Your task to perform on an android device: Search for "usb-a to usb-b" on costco.com, select the first entry, add it to the cart, then select checkout. Image 0: 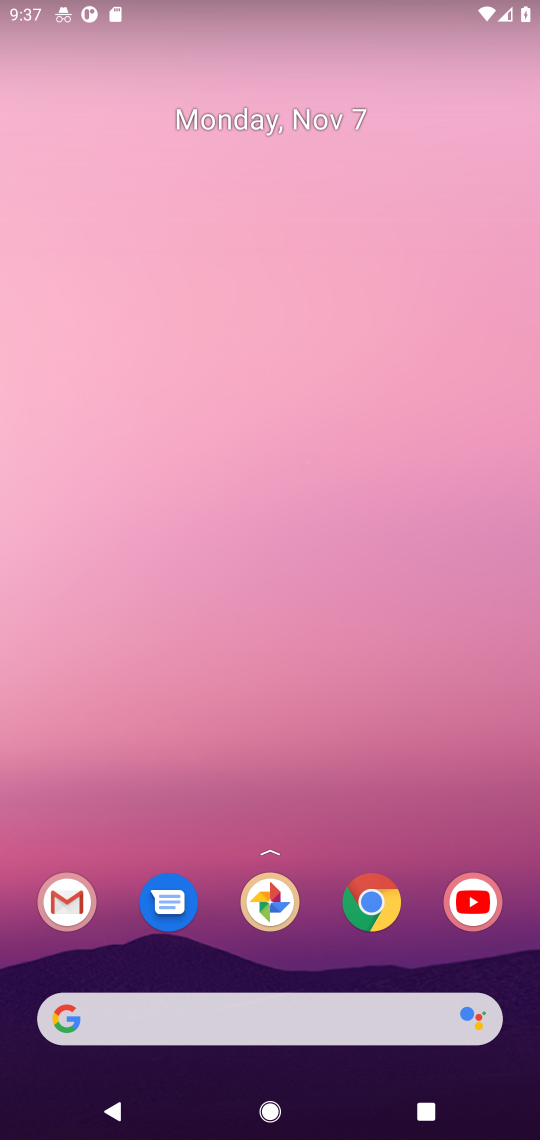
Step 0: click (363, 914)
Your task to perform on an android device: Search for "usb-a to usb-b" on costco.com, select the first entry, add it to the cart, then select checkout. Image 1: 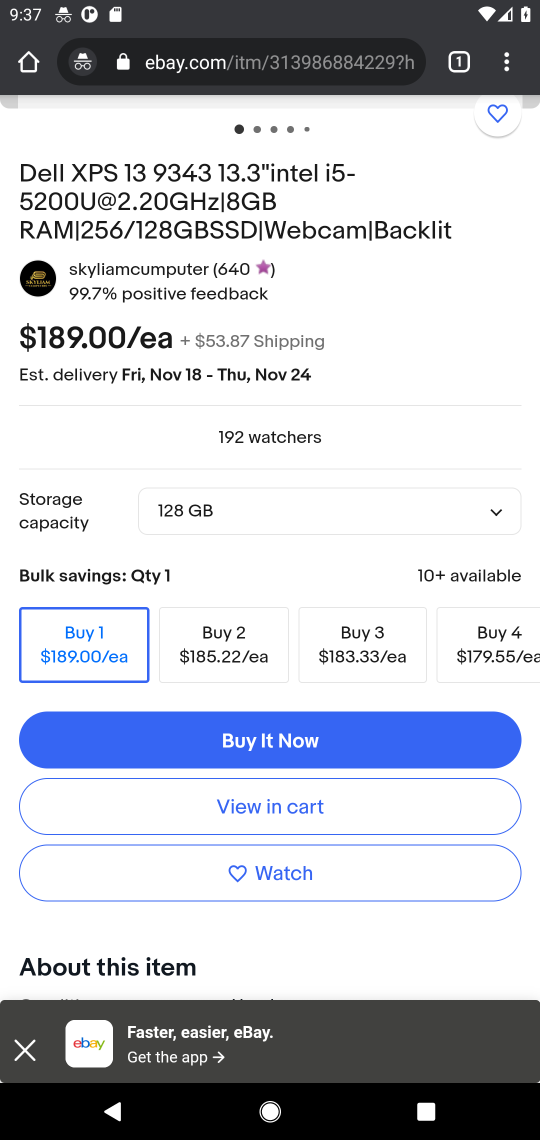
Step 1: click (259, 71)
Your task to perform on an android device: Search for "usb-a to usb-b" on costco.com, select the first entry, add it to the cart, then select checkout. Image 2: 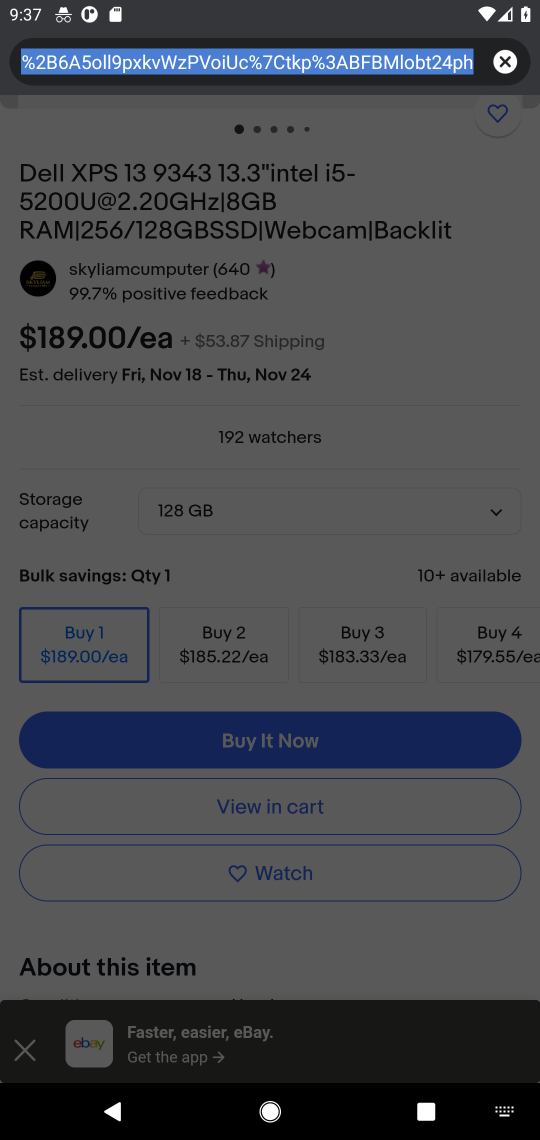
Step 2: click (498, 60)
Your task to perform on an android device: Search for "usb-a to usb-b" on costco.com, select the first entry, add it to the cart, then select checkout. Image 3: 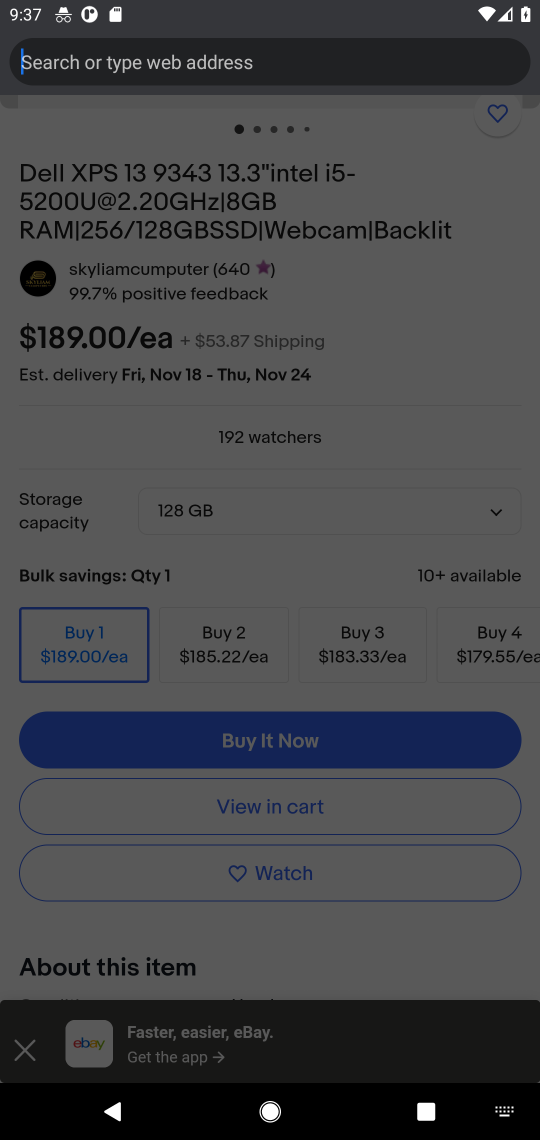
Step 3: click (350, 83)
Your task to perform on an android device: Search for "usb-a to usb-b" on costco.com, select the first entry, add it to the cart, then select checkout. Image 4: 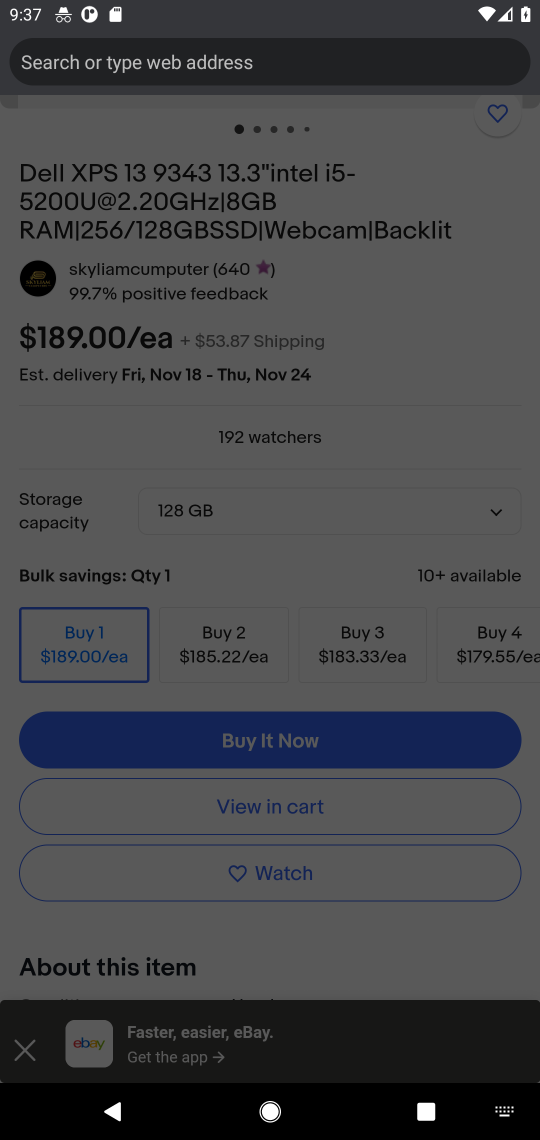
Step 4: type "costco.com"
Your task to perform on an android device: Search for "usb-a to usb-b" on costco.com, select the first entry, add it to the cart, then select checkout. Image 5: 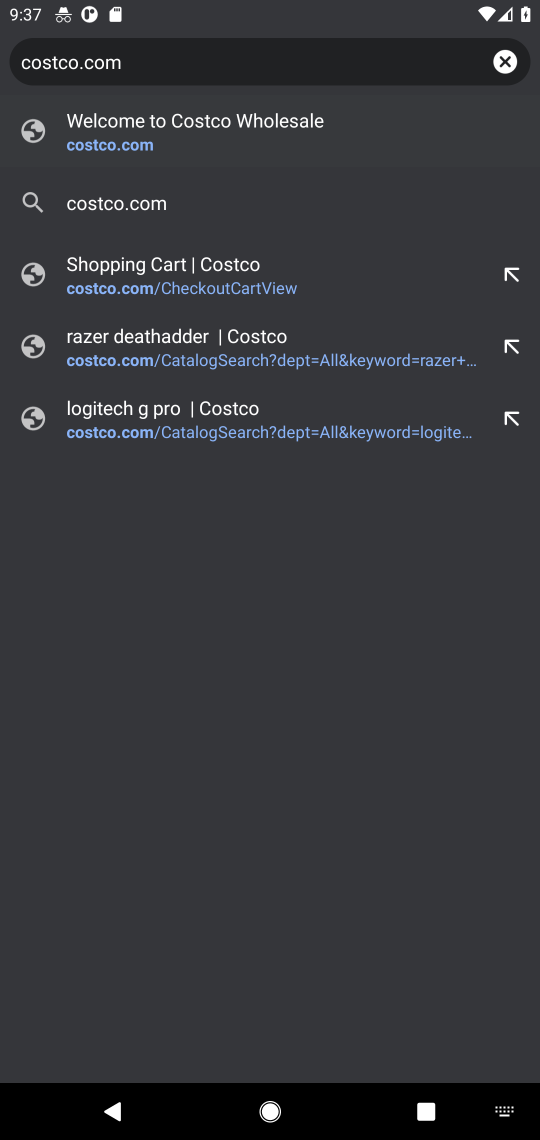
Step 5: click (143, 141)
Your task to perform on an android device: Search for "usb-a to usb-b" on costco.com, select the first entry, add it to the cart, then select checkout. Image 6: 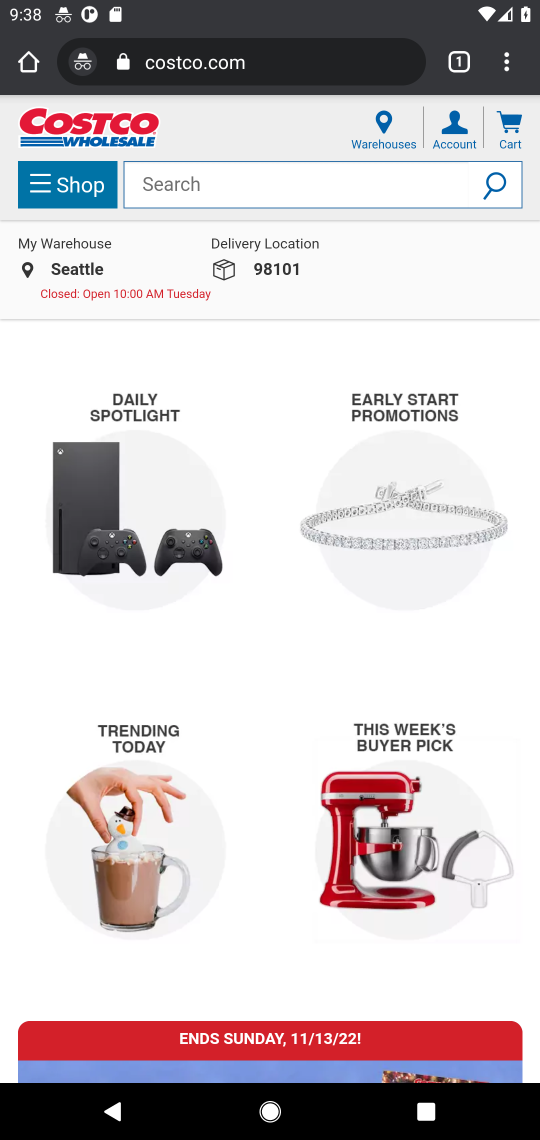
Step 6: click (216, 179)
Your task to perform on an android device: Search for "usb-a to usb-b" on costco.com, select the first entry, add it to the cart, then select checkout. Image 7: 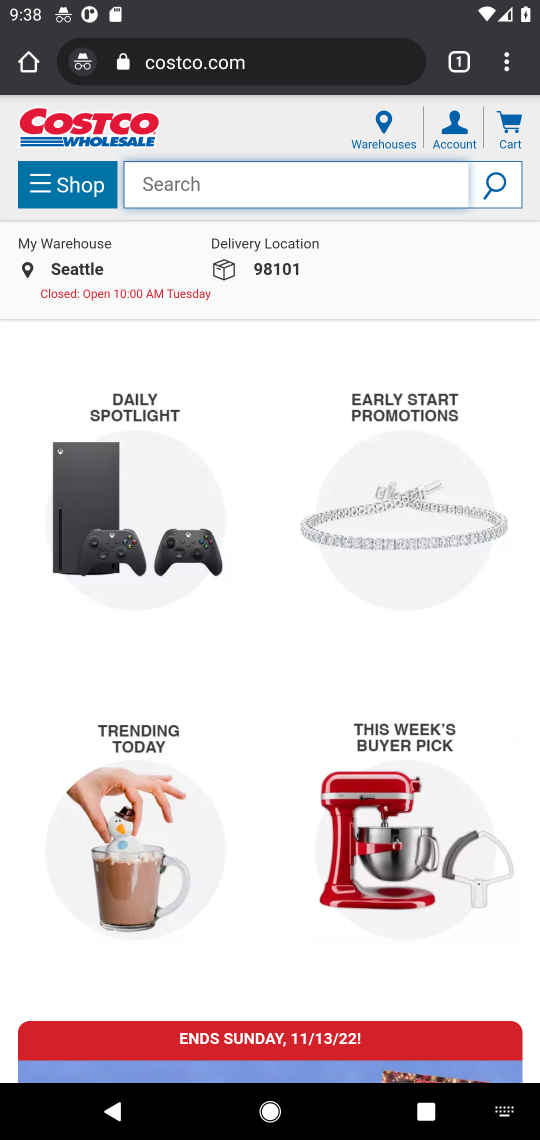
Step 7: type "usb-a to usb-b"
Your task to perform on an android device: Search for "usb-a to usb-b" on costco.com, select the first entry, add it to the cart, then select checkout. Image 8: 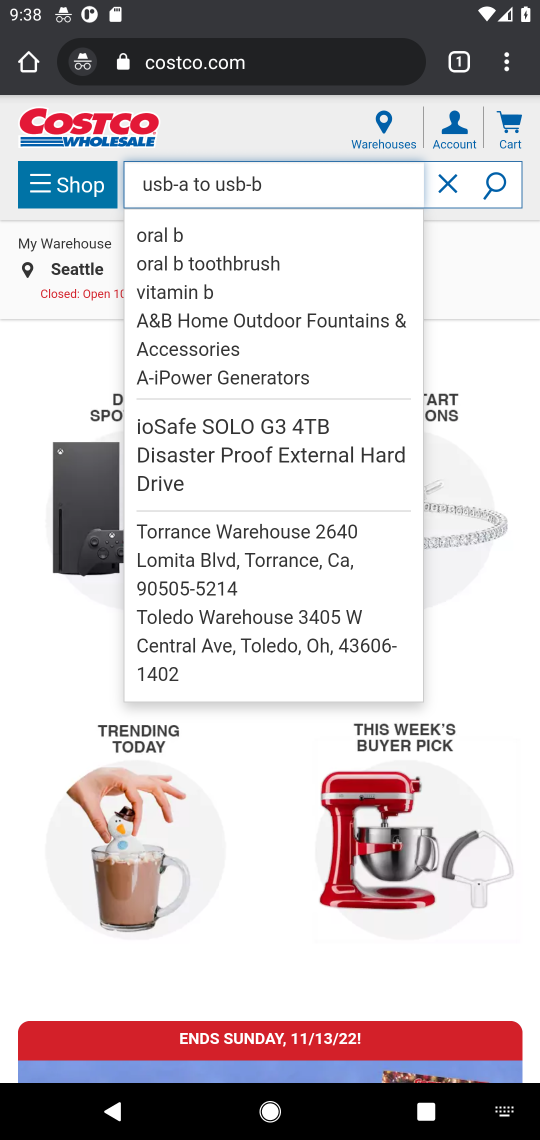
Step 8: click (496, 187)
Your task to perform on an android device: Search for "usb-a to usb-b" on costco.com, select the first entry, add it to the cart, then select checkout. Image 9: 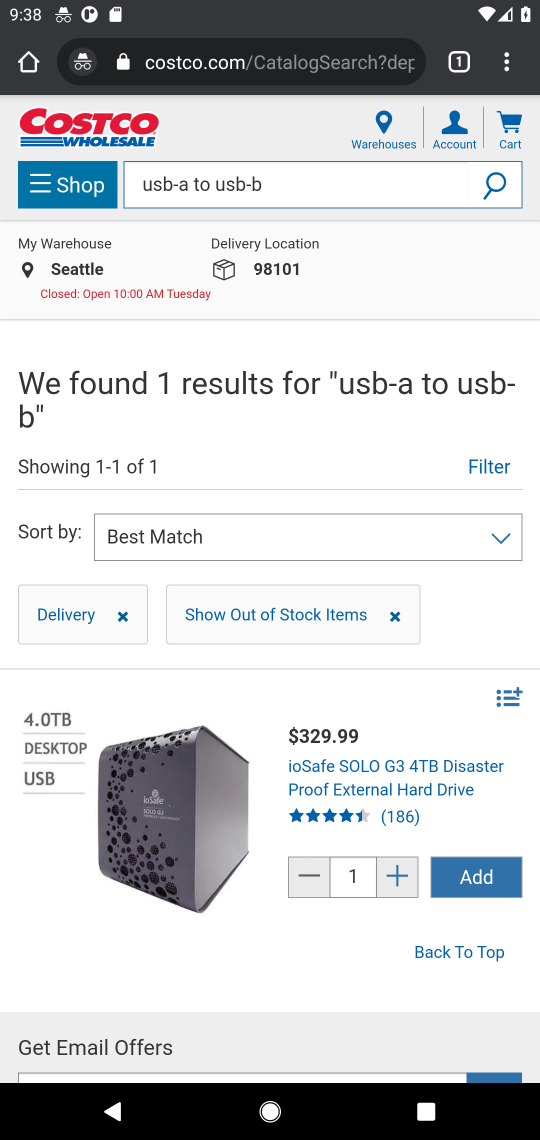
Step 9: task complete